Your task to perform on an android device: See recent photos Image 0: 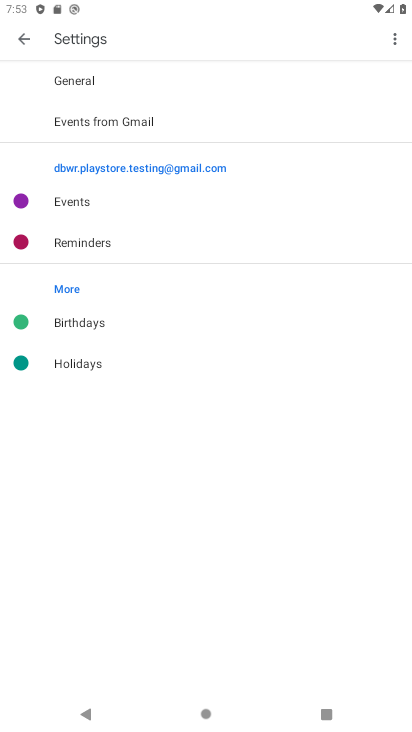
Step 0: press back button
Your task to perform on an android device: See recent photos Image 1: 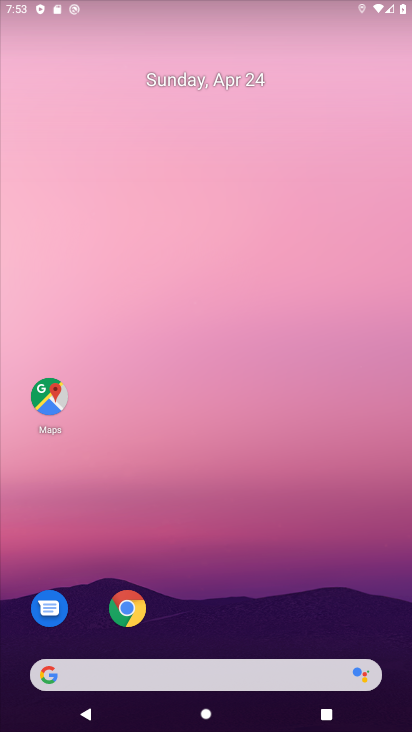
Step 1: press home button
Your task to perform on an android device: See recent photos Image 2: 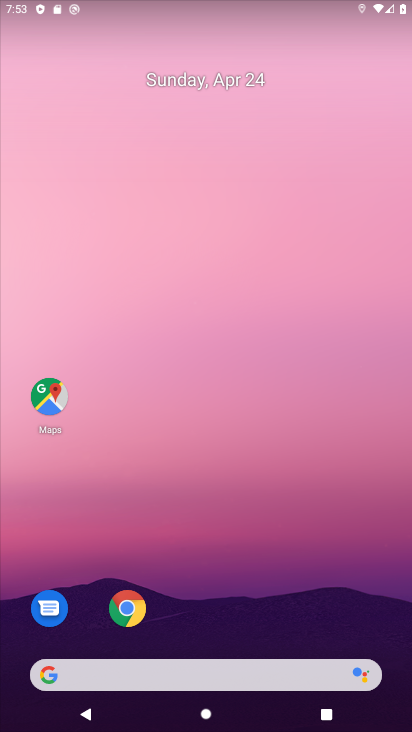
Step 2: drag from (207, 551) to (209, 383)
Your task to perform on an android device: See recent photos Image 3: 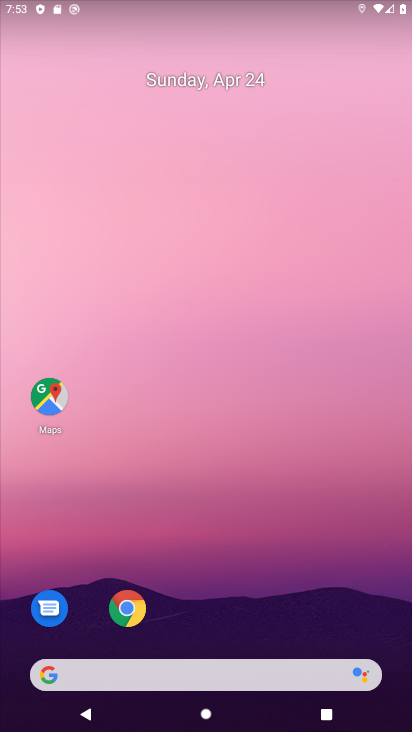
Step 3: drag from (187, 640) to (302, 87)
Your task to perform on an android device: See recent photos Image 4: 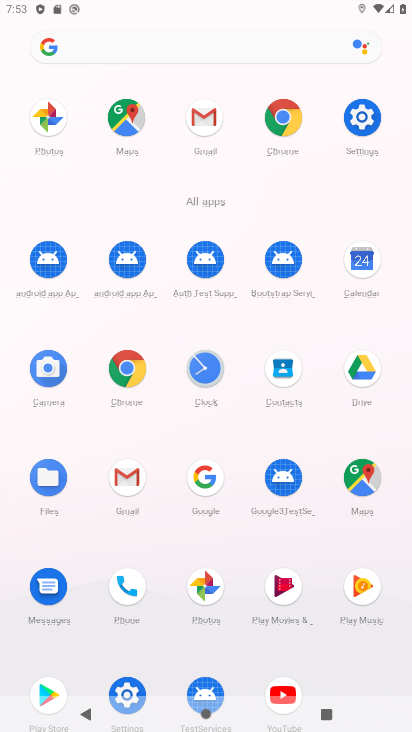
Step 4: click (208, 595)
Your task to perform on an android device: See recent photos Image 5: 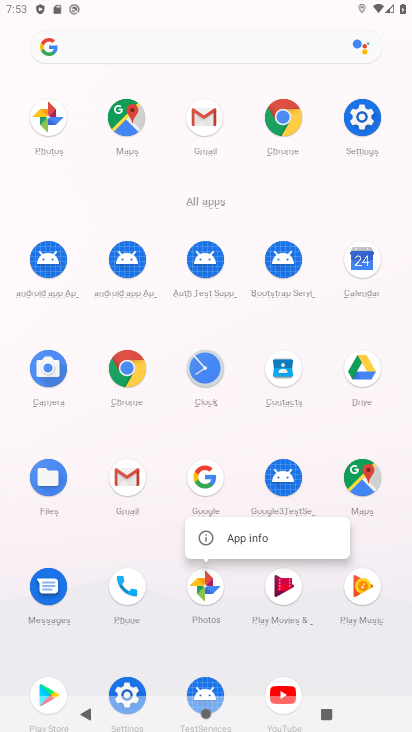
Step 5: click (199, 598)
Your task to perform on an android device: See recent photos Image 6: 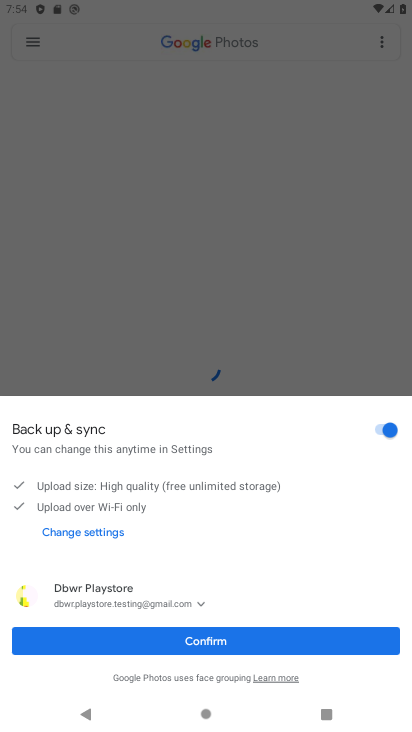
Step 6: click (219, 647)
Your task to perform on an android device: See recent photos Image 7: 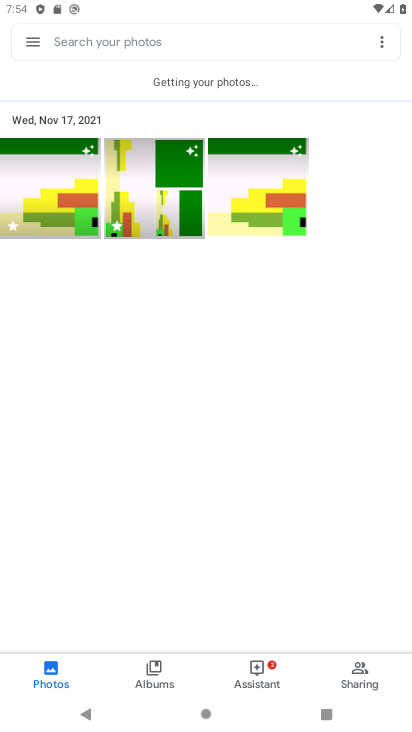
Step 7: task complete